Your task to perform on an android device: Open Google Image 0: 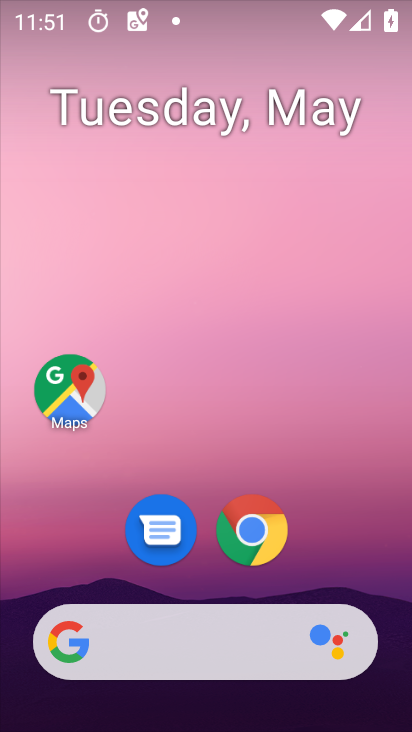
Step 0: drag from (197, 656) to (323, 17)
Your task to perform on an android device: Open Google Image 1: 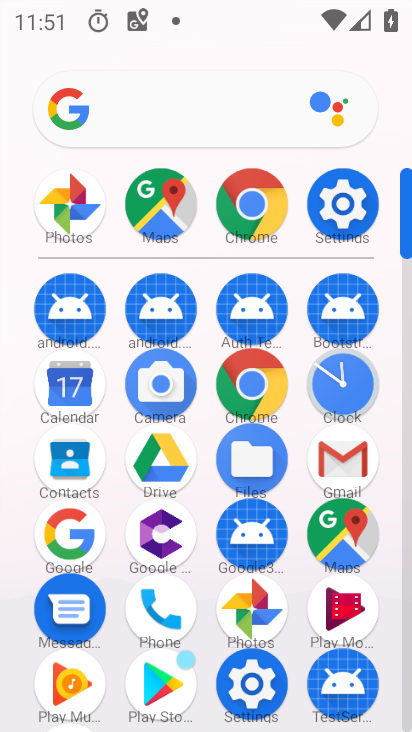
Step 1: click (245, 388)
Your task to perform on an android device: Open Google Image 2: 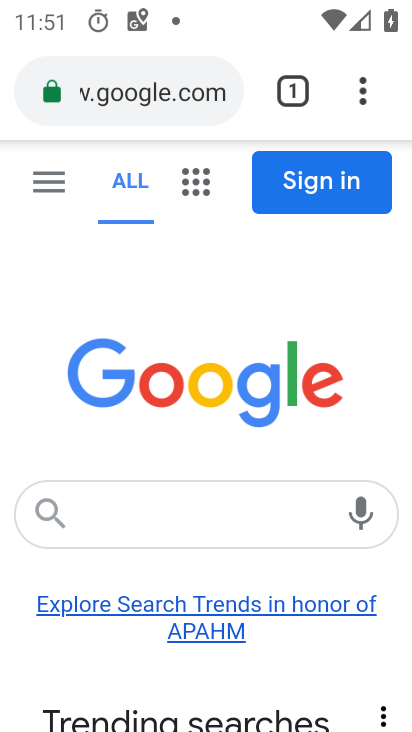
Step 2: task complete